Your task to perform on an android device: open app "Adobe Express: Graphic Design" Image 0: 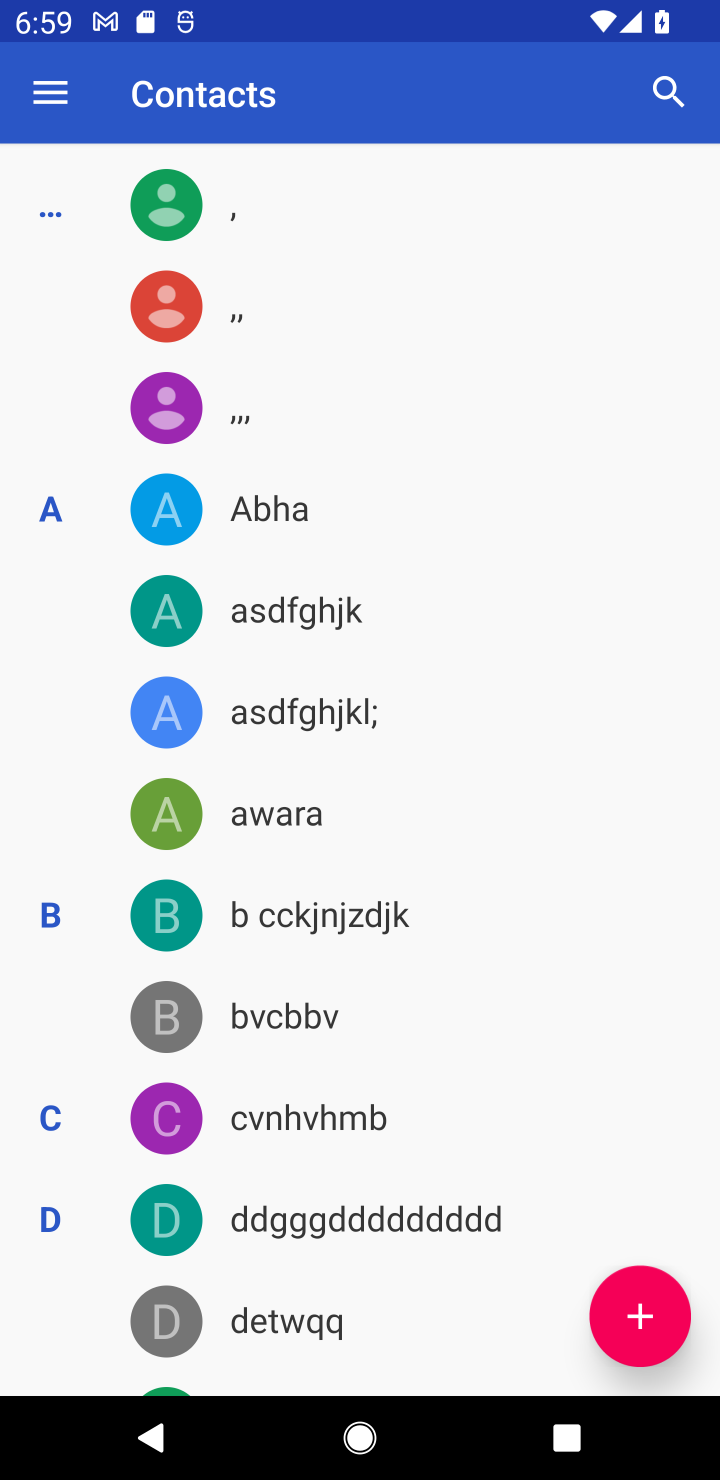
Step 0: press home button
Your task to perform on an android device: open app "Adobe Express: Graphic Design" Image 1: 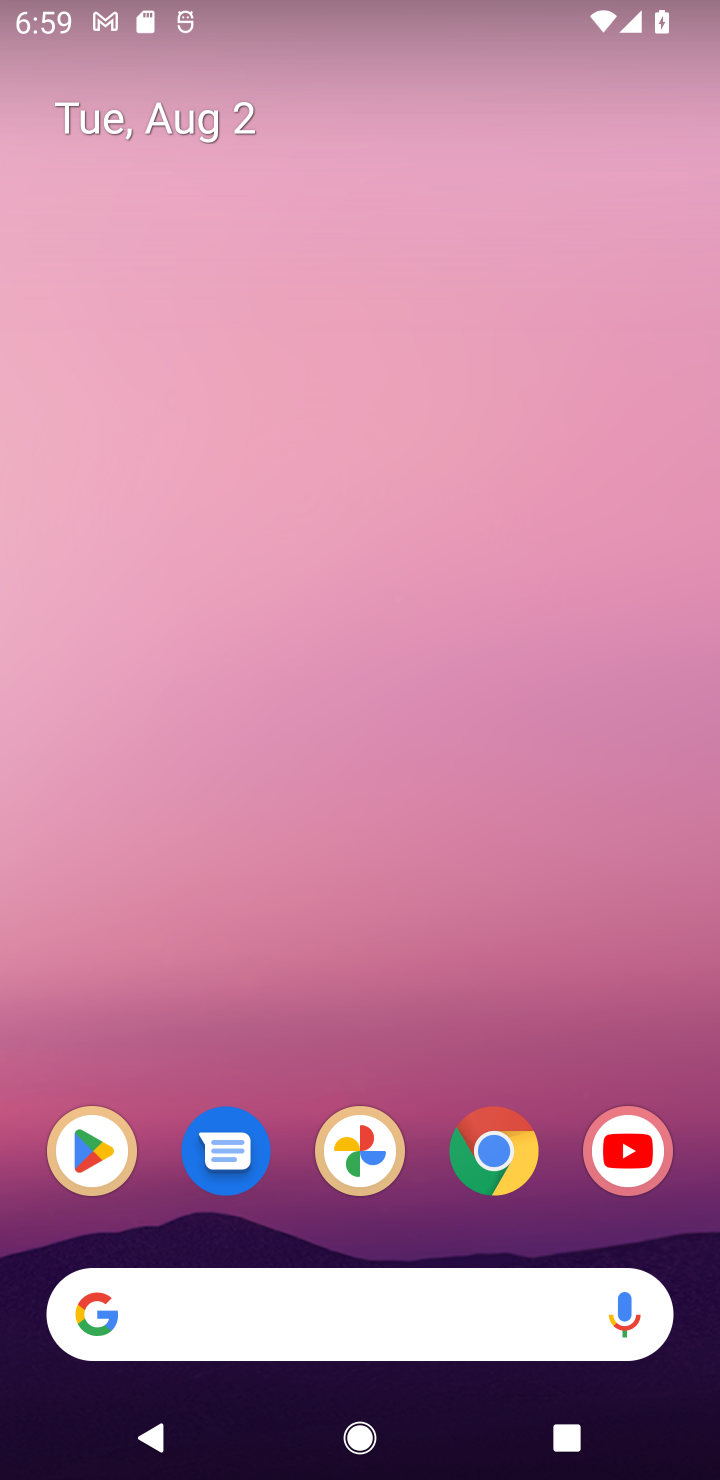
Step 1: click (88, 1136)
Your task to perform on an android device: open app "Adobe Express: Graphic Design" Image 2: 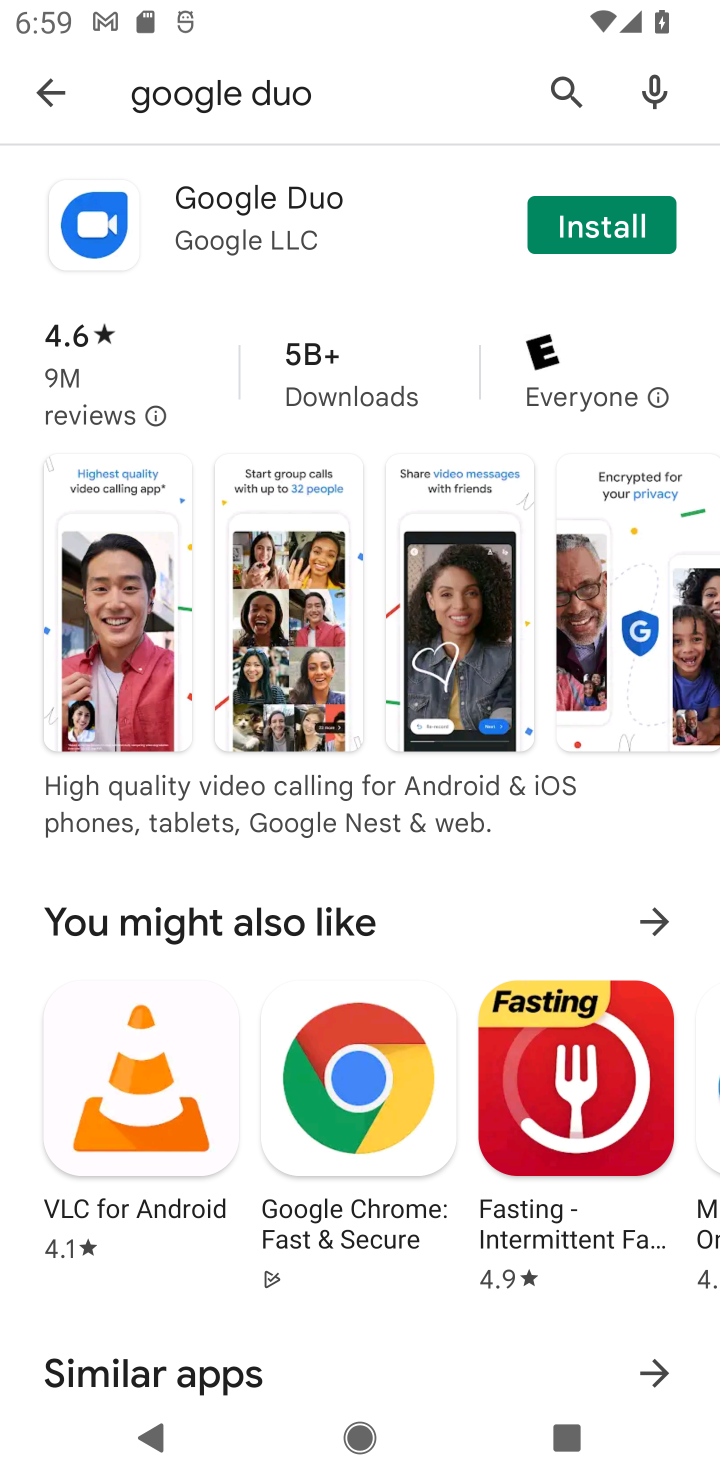
Step 2: click (549, 82)
Your task to perform on an android device: open app "Adobe Express: Graphic Design" Image 3: 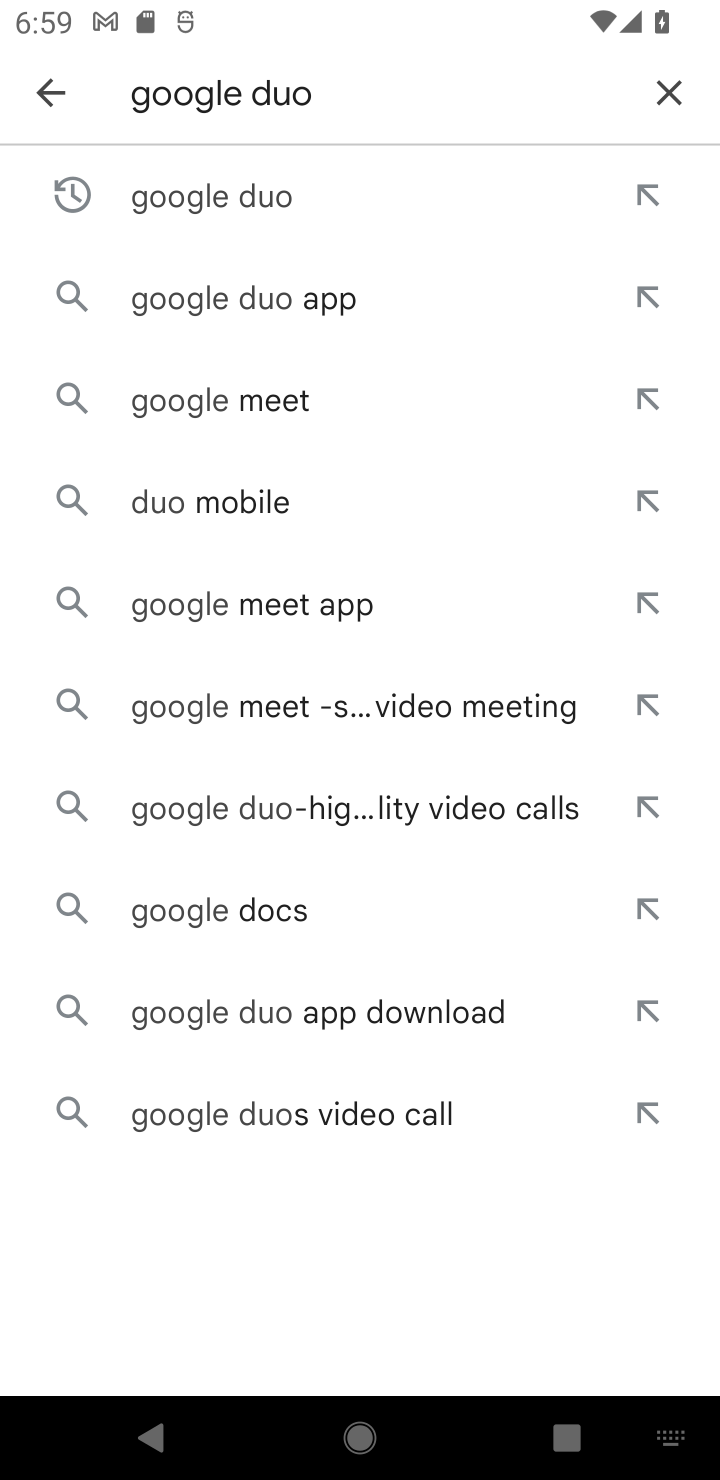
Step 3: click (663, 85)
Your task to perform on an android device: open app "Adobe Express: Graphic Design" Image 4: 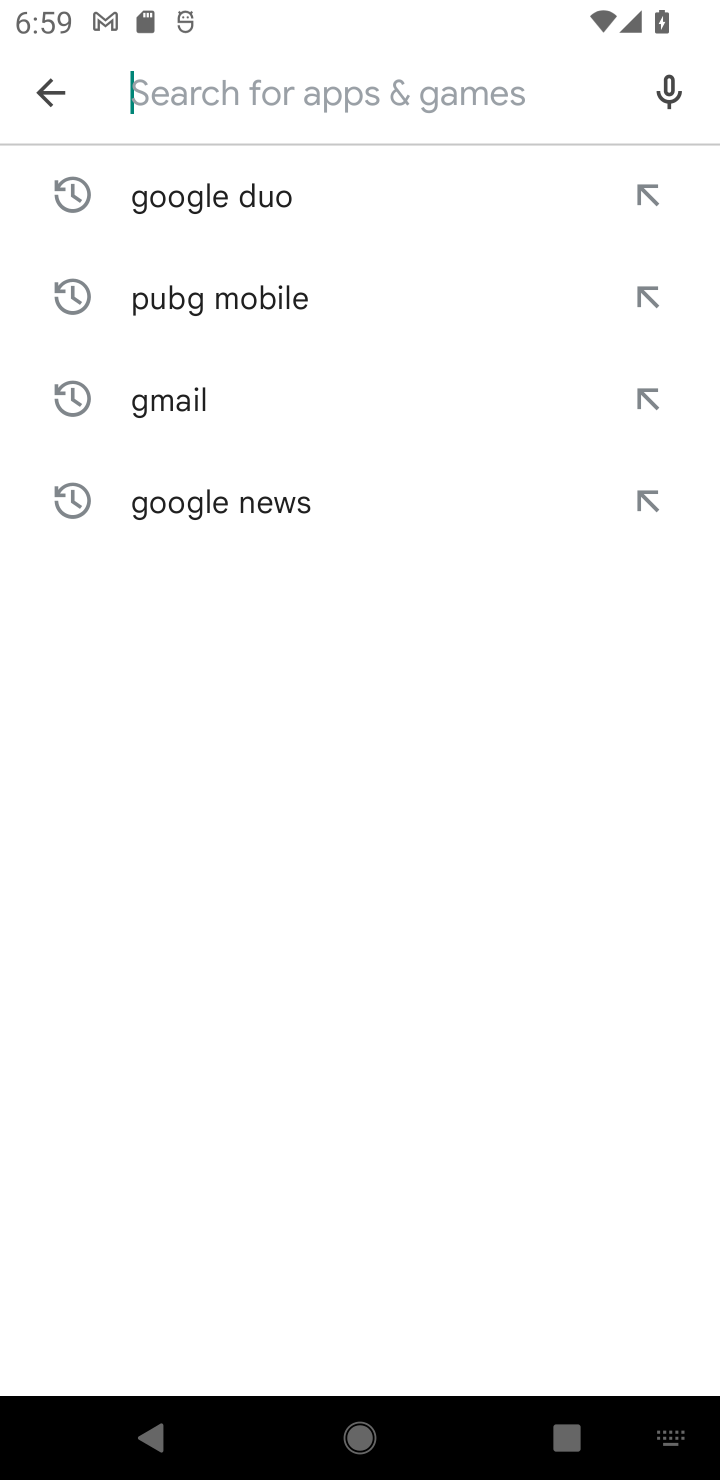
Step 4: type "Adobe Express: Graphic Design"
Your task to perform on an android device: open app "Adobe Express: Graphic Design" Image 5: 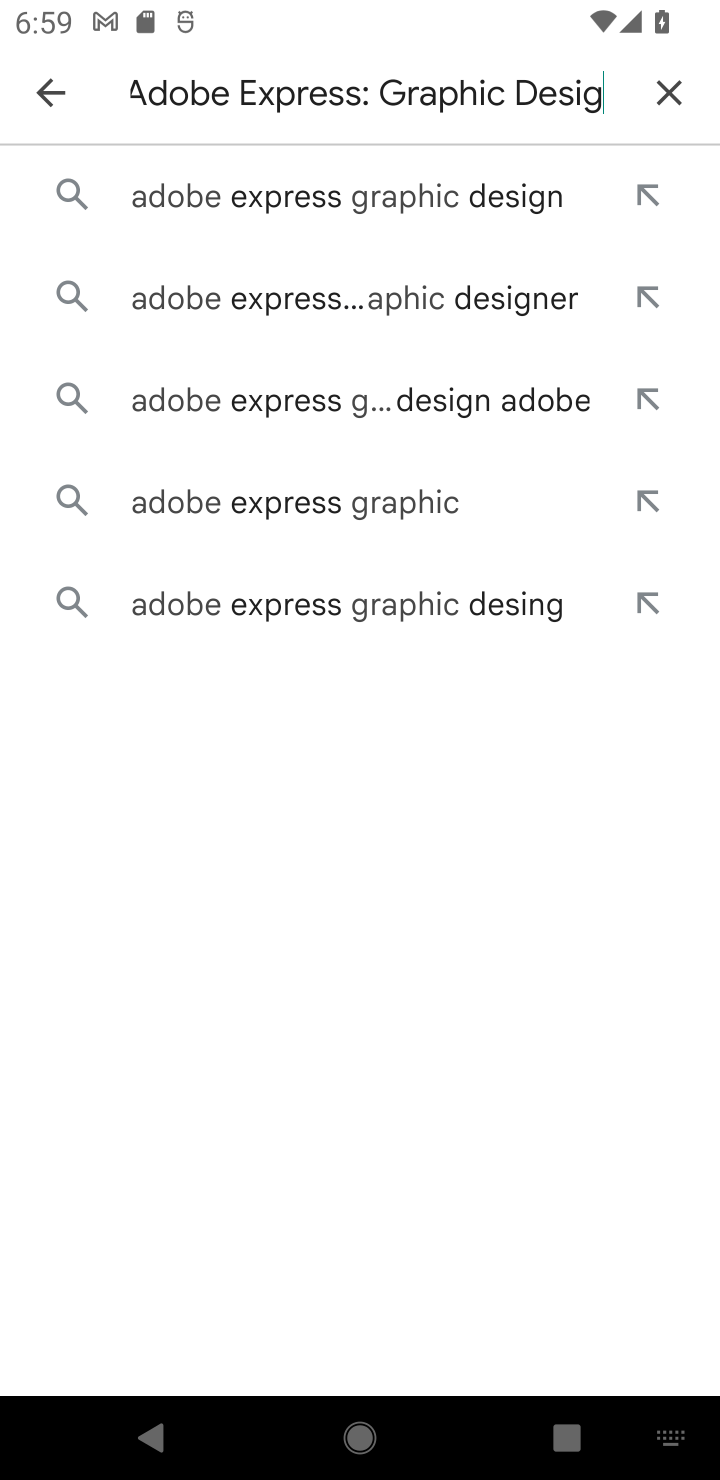
Step 5: type ""
Your task to perform on an android device: open app "Adobe Express: Graphic Design" Image 6: 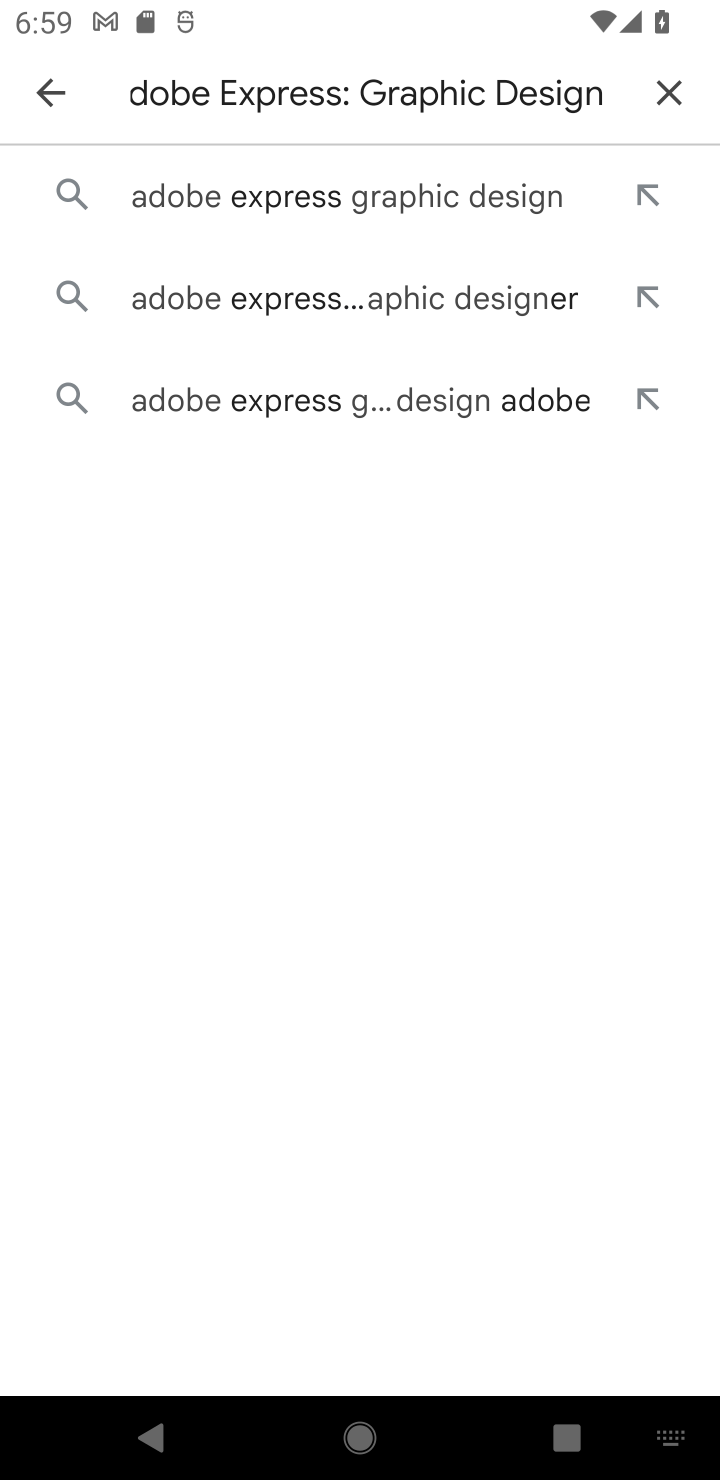
Step 6: click (216, 203)
Your task to perform on an android device: open app "Adobe Express: Graphic Design" Image 7: 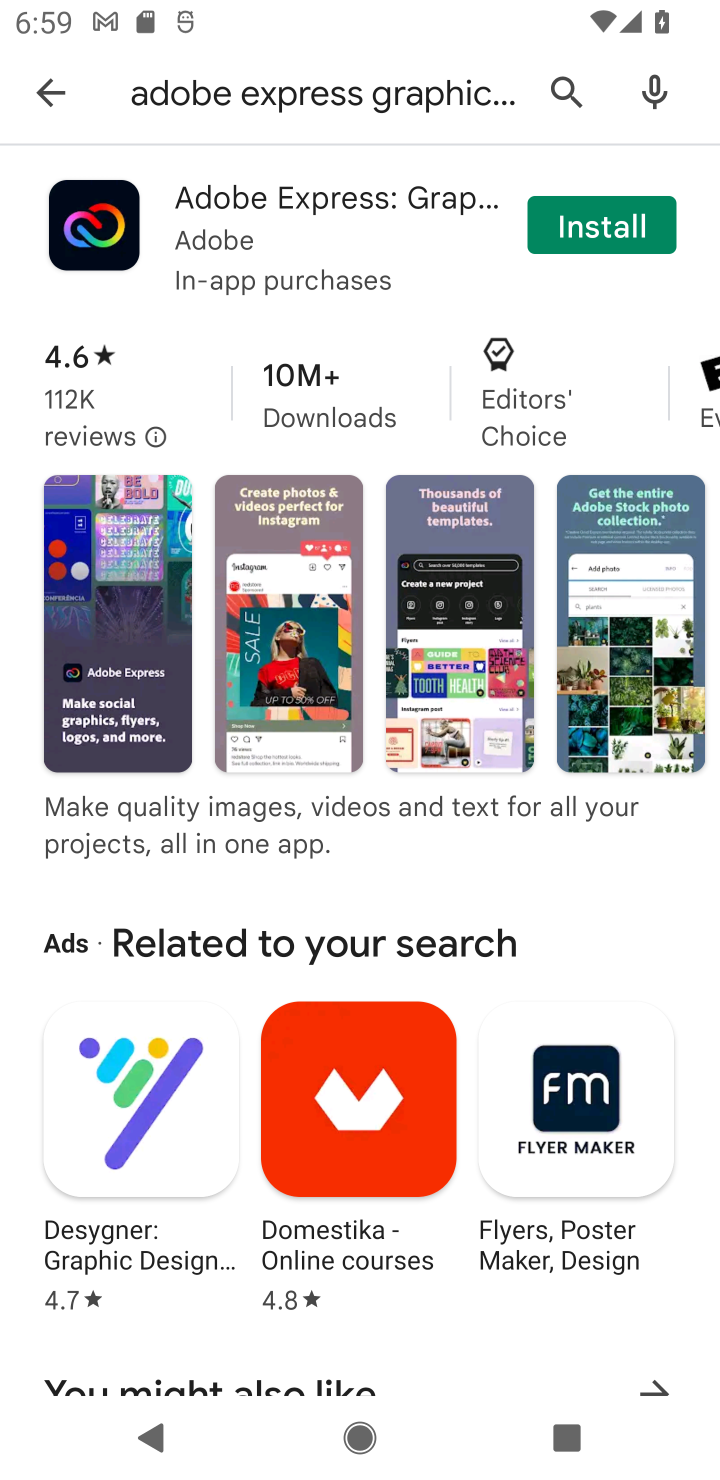
Step 7: task complete